Your task to perform on an android device: open chrome and create a bookmark for the current page Image 0: 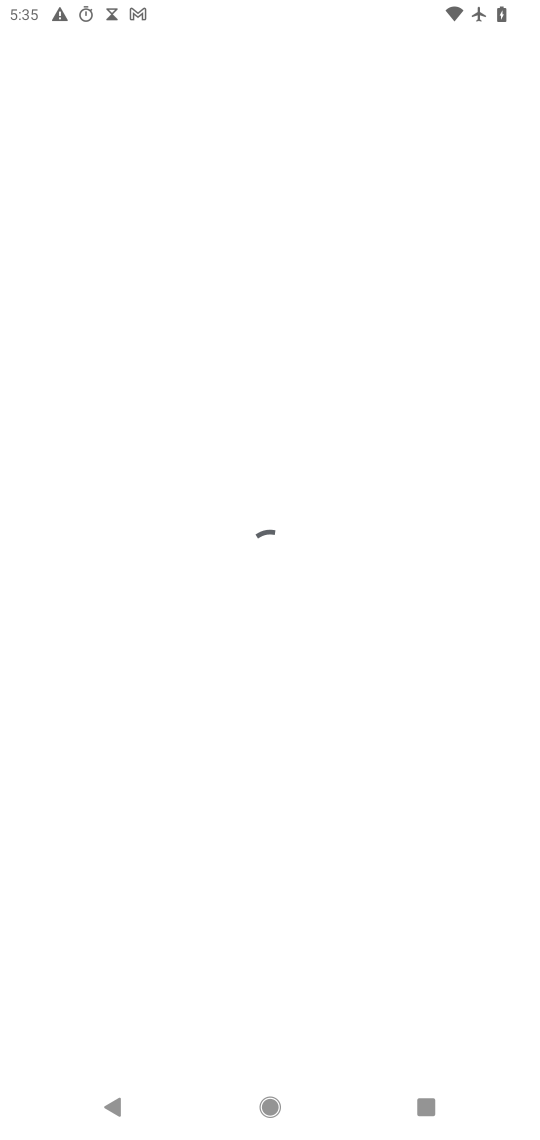
Step 0: press home button
Your task to perform on an android device: open chrome and create a bookmark for the current page Image 1: 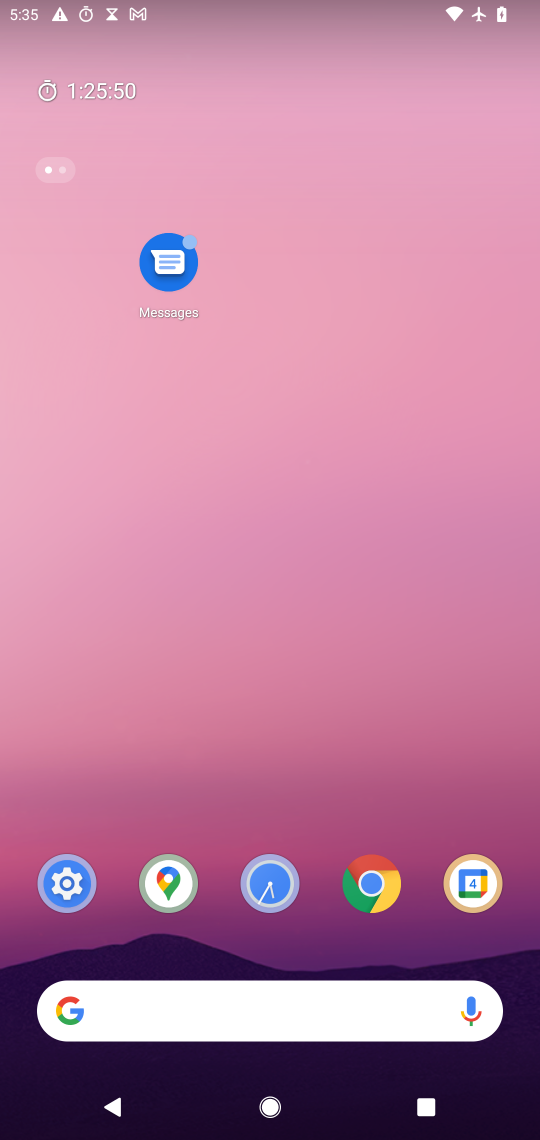
Step 1: drag from (319, 901) to (258, 46)
Your task to perform on an android device: open chrome and create a bookmark for the current page Image 2: 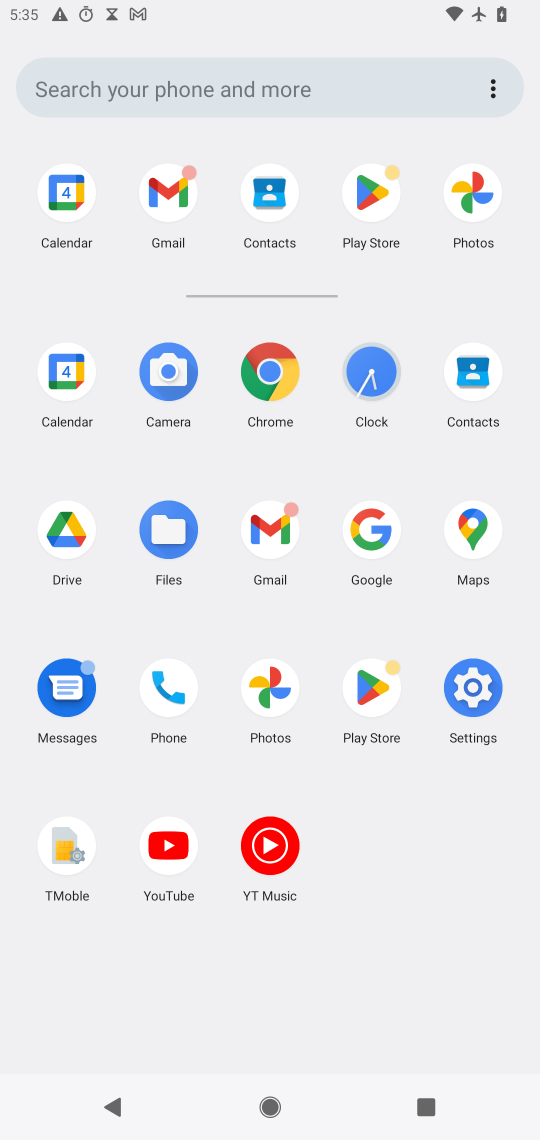
Step 2: click (273, 368)
Your task to perform on an android device: open chrome and create a bookmark for the current page Image 3: 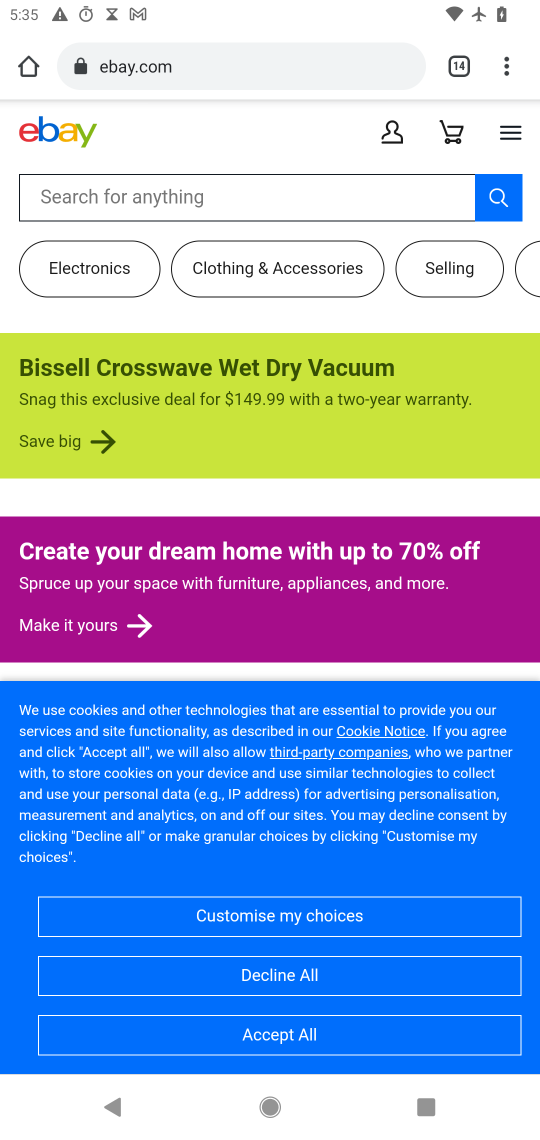
Step 3: click (503, 67)
Your task to perform on an android device: open chrome and create a bookmark for the current page Image 4: 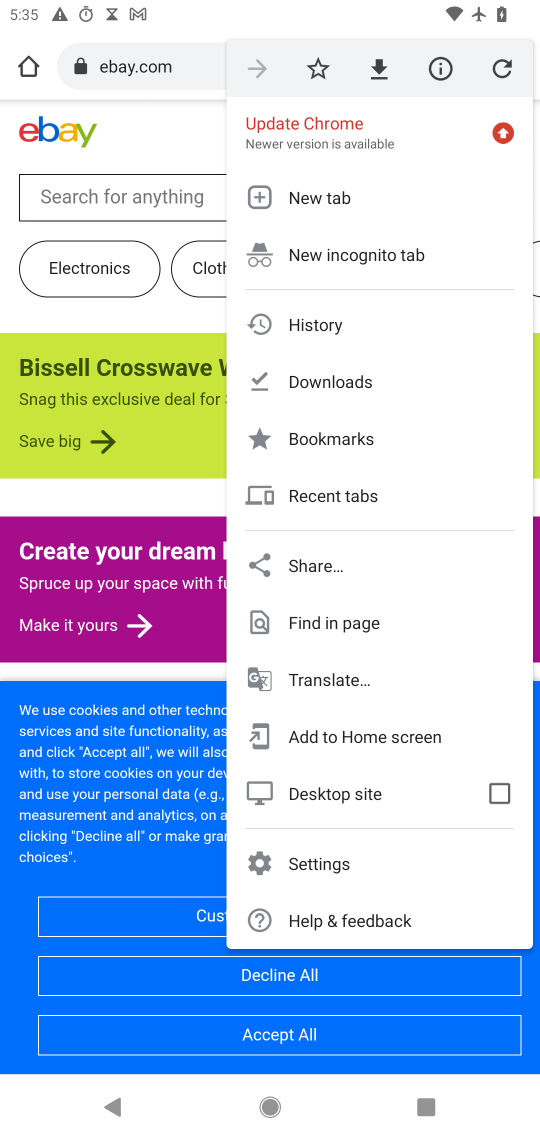
Step 4: click (317, 67)
Your task to perform on an android device: open chrome and create a bookmark for the current page Image 5: 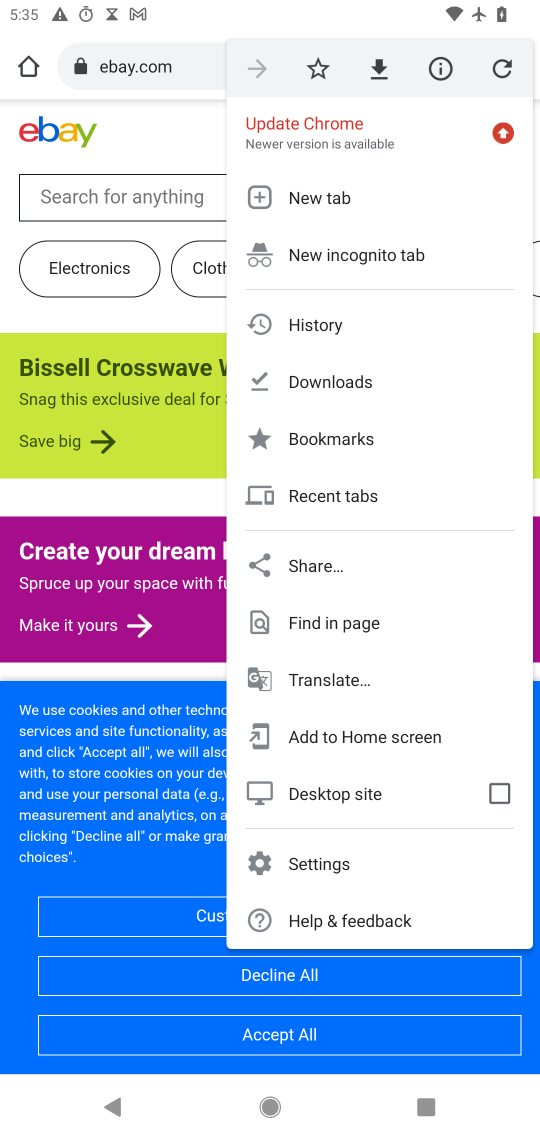
Step 5: click (323, 70)
Your task to perform on an android device: open chrome and create a bookmark for the current page Image 6: 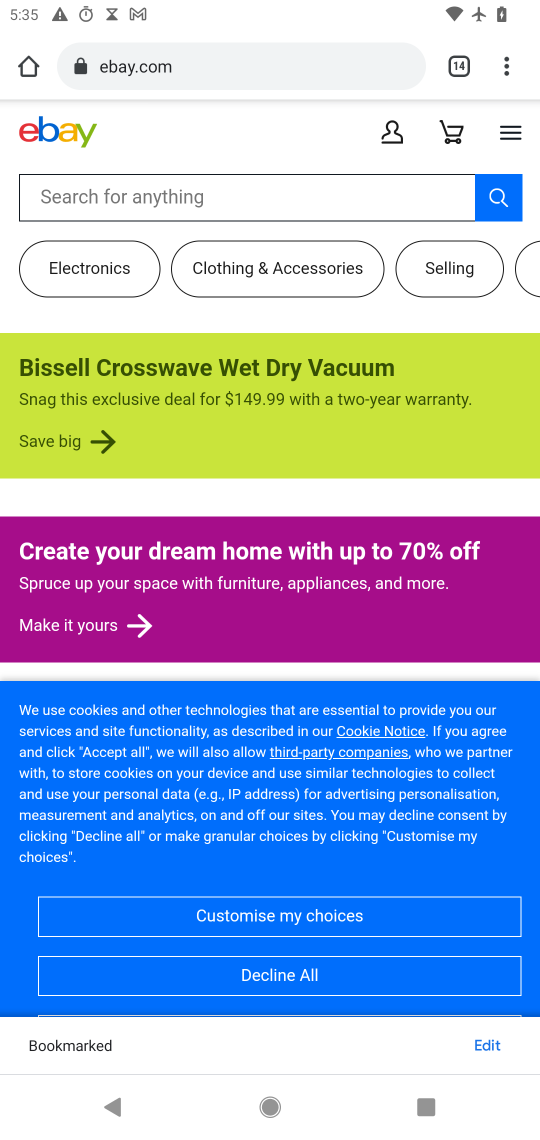
Step 6: task complete